Your task to perform on an android device: What's the weather? Image 0: 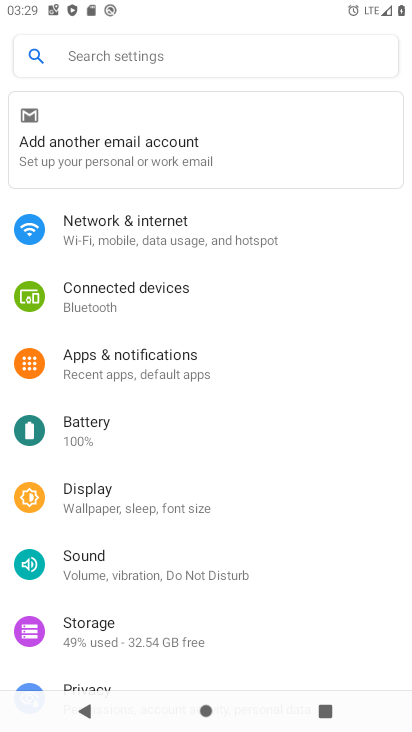
Step 0: press home button
Your task to perform on an android device: What's the weather? Image 1: 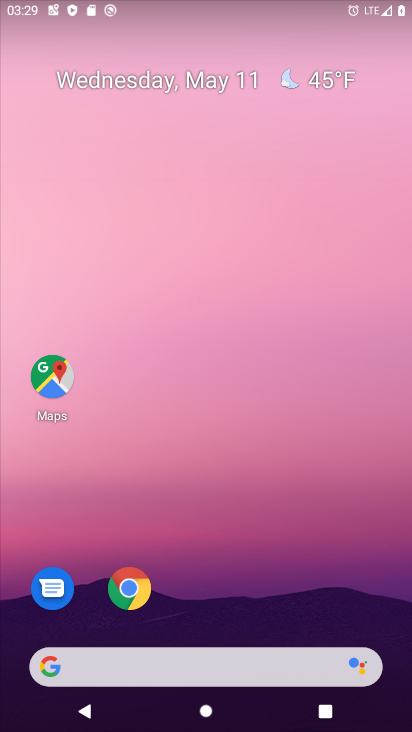
Step 1: drag from (205, 595) to (214, 185)
Your task to perform on an android device: What's the weather? Image 2: 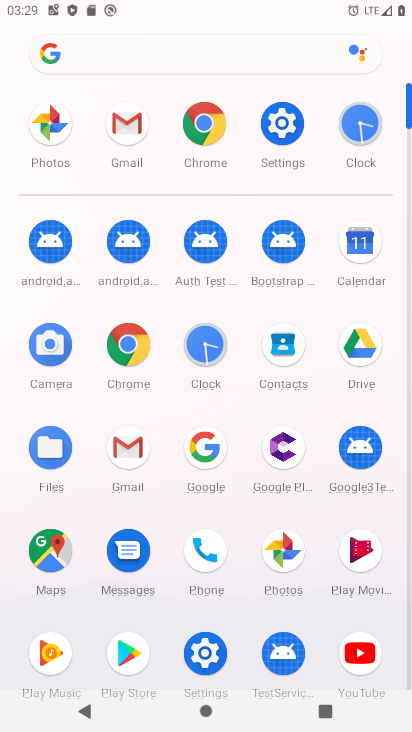
Step 2: click (198, 444)
Your task to perform on an android device: What's the weather? Image 3: 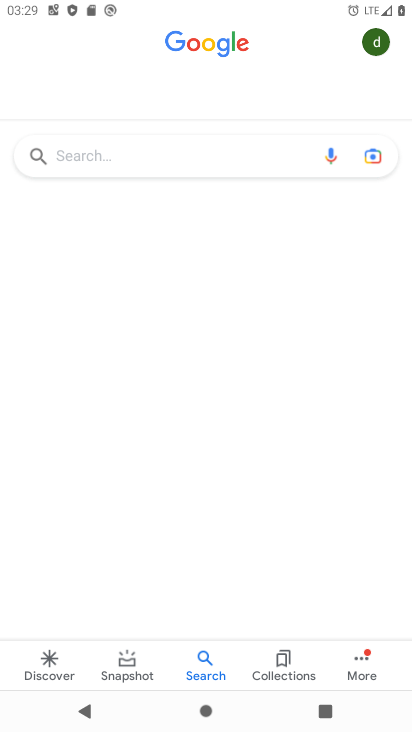
Step 3: click (114, 157)
Your task to perform on an android device: What's the weather? Image 4: 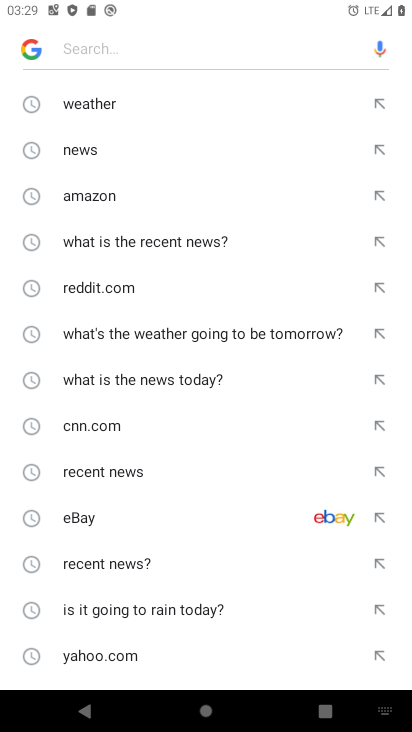
Step 4: click (91, 106)
Your task to perform on an android device: What's the weather? Image 5: 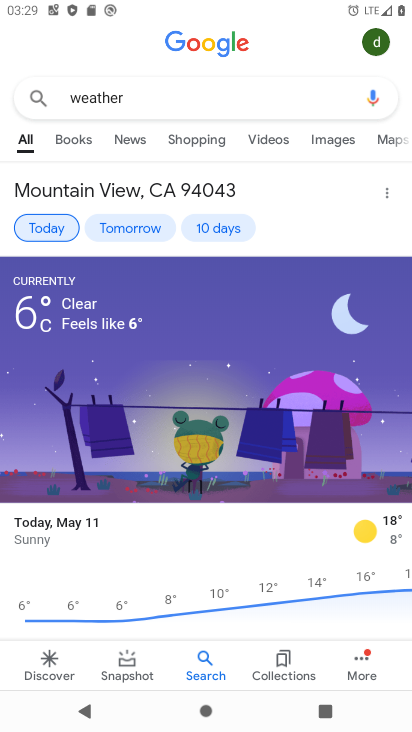
Step 5: task complete